Your task to perform on an android device: Do I have any events this weekend? Image 0: 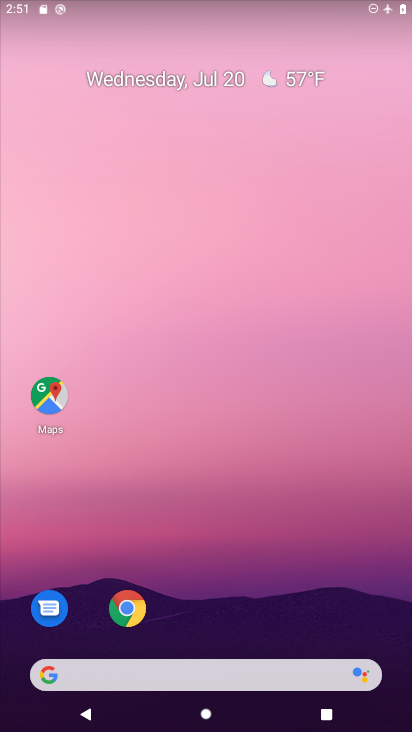
Step 0: drag from (238, 676) to (235, 467)
Your task to perform on an android device: Do I have any events this weekend? Image 1: 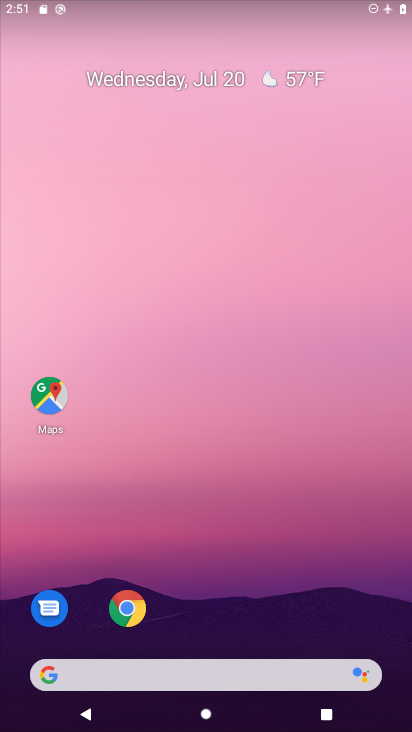
Step 1: drag from (227, 717) to (211, 462)
Your task to perform on an android device: Do I have any events this weekend? Image 2: 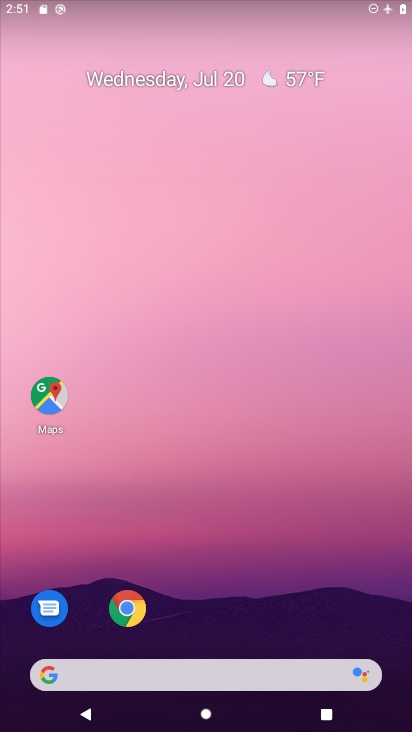
Step 2: drag from (242, 729) to (233, 121)
Your task to perform on an android device: Do I have any events this weekend? Image 3: 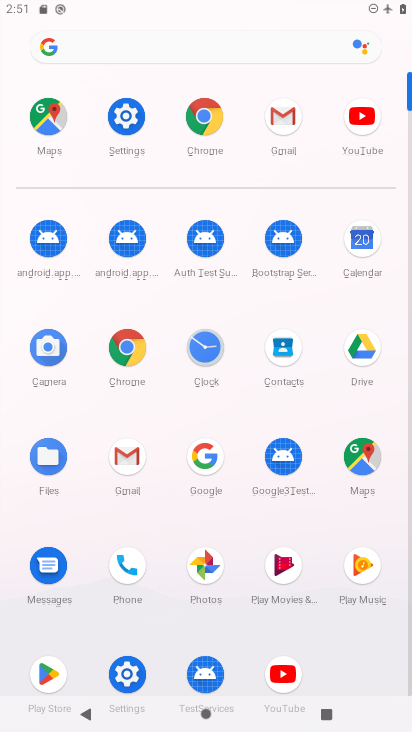
Step 3: click (361, 241)
Your task to perform on an android device: Do I have any events this weekend? Image 4: 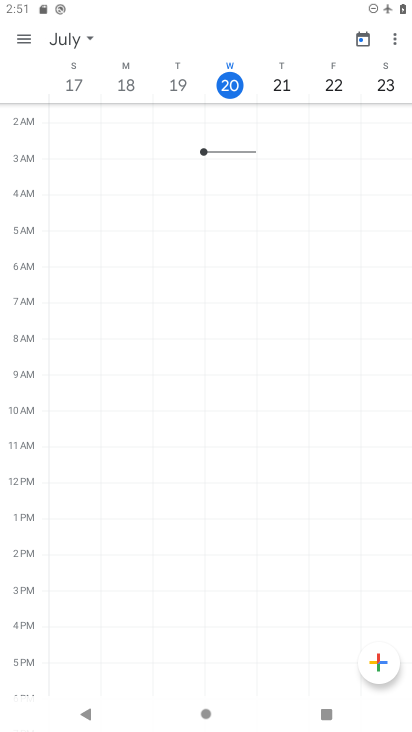
Step 4: click (385, 80)
Your task to perform on an android device: Do I have any events this weekend? Image 5: 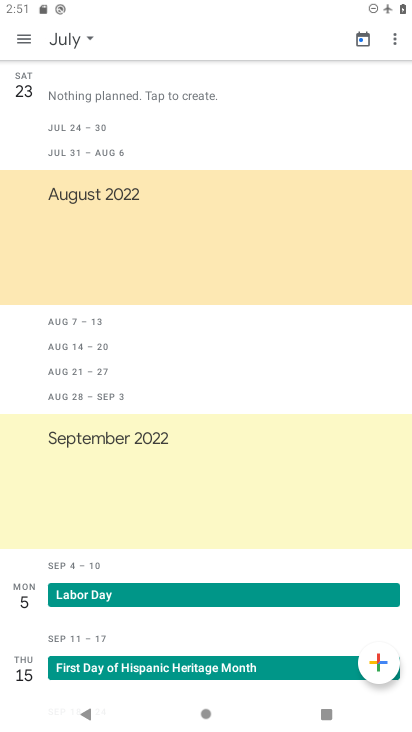
Step 5: click (25, 38)
Your task to perform on an android device: Do I have any events this weekend? Image 6: 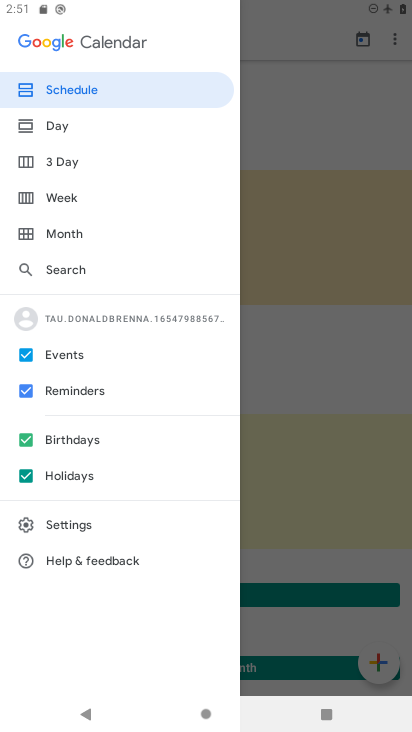
Step 6: click (25, 478)
Your task to perform on an android device: Do I have any events this weekend? Image 7: 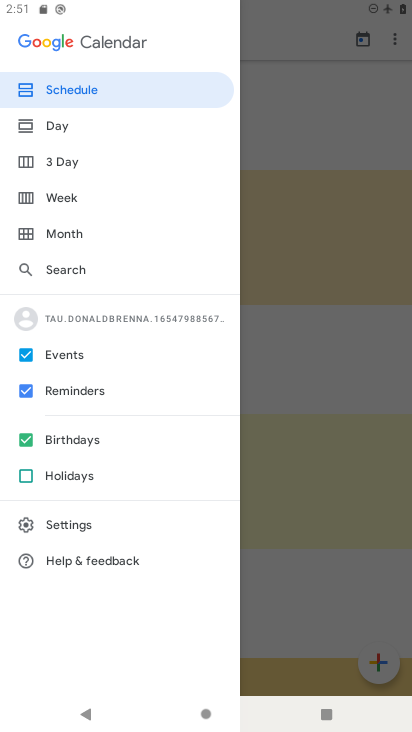
Step 7: click (28, 439)
Your task to perform on an android device: Do I have any events this weekend? Image 8: 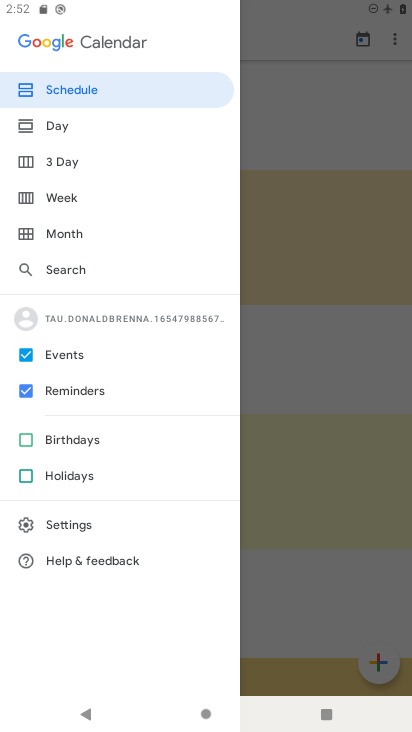
Step 8: click (24, 387)
Your task to perform on an android device: Do I have any events this weekend? Image 9: 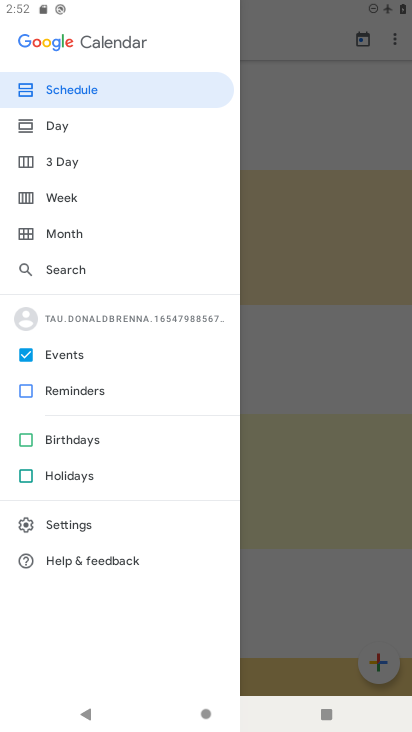
Step 9: click (324, 171)
Your task to perform on an android device: Do I have any events this weekend? Image 10: 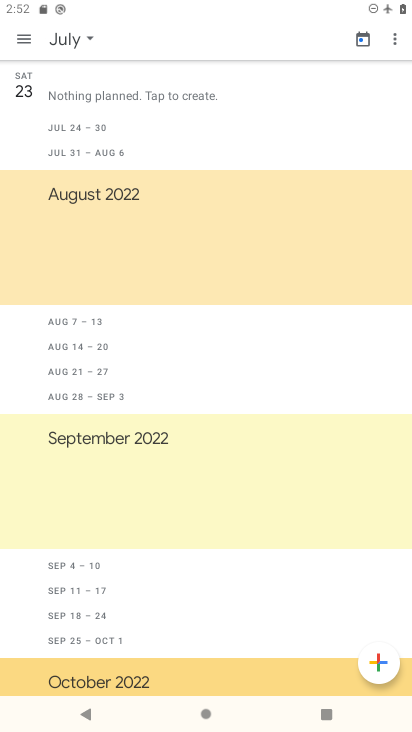
Step 10: task complete